Your task to perform on an android device: What is the news today? Image 0: 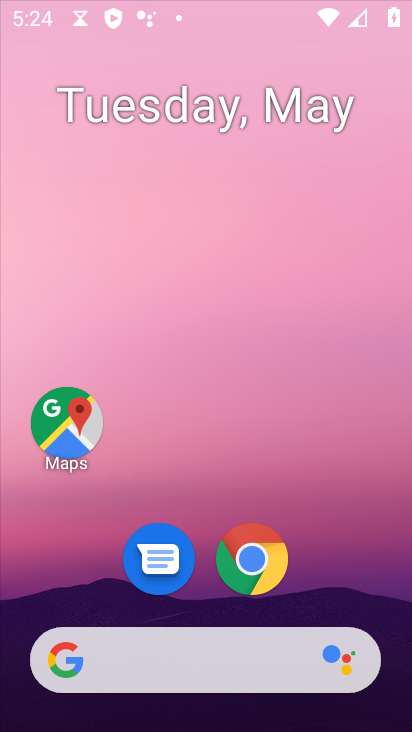
Step 0: drag from (290, 578) to (127, 46)
Your task to perform on an android device: What is the news today? Image 1: 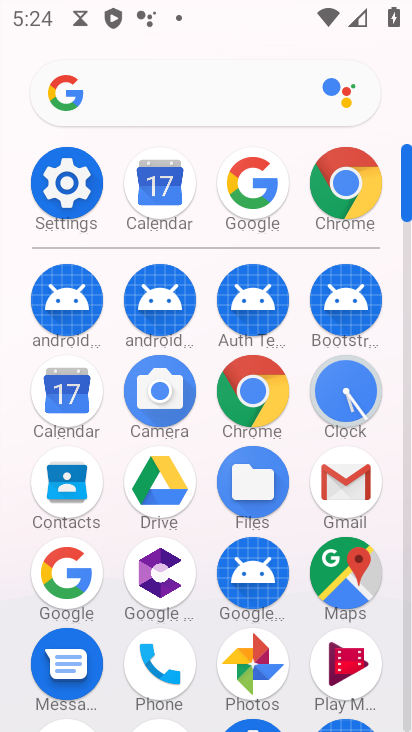
Step 1: press back button
Your task to perform on an android device: What is the news today? Image 2: 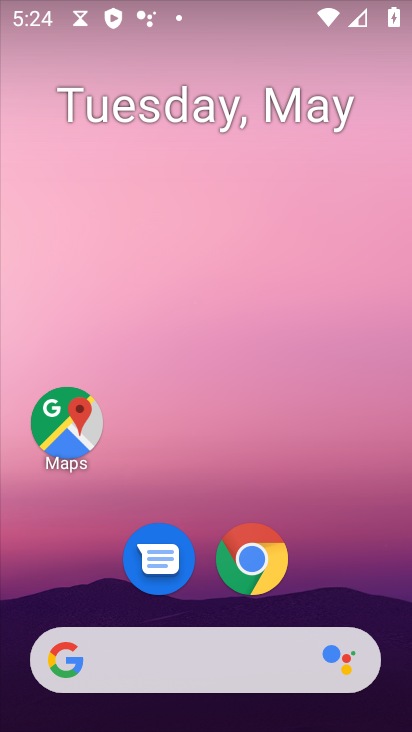
Step 2: drag from (7, 152) to (409, 344)
Your task to perform on an android device: What is the news today? Image 3: 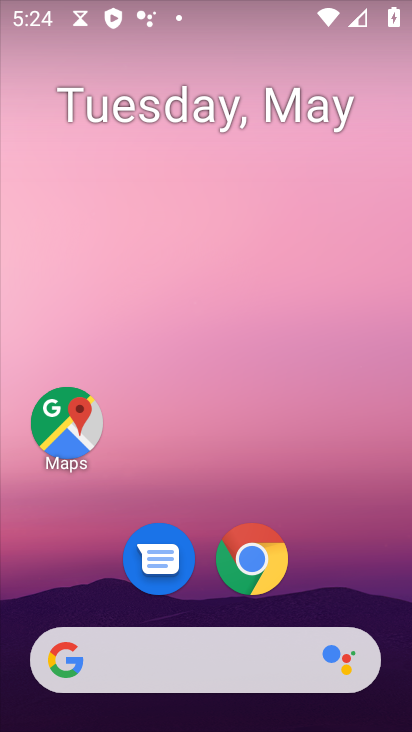
Step 3: drag from (56, 197) to (408, 334)
Your task to perform on an android device: What is the news today? Image 4: 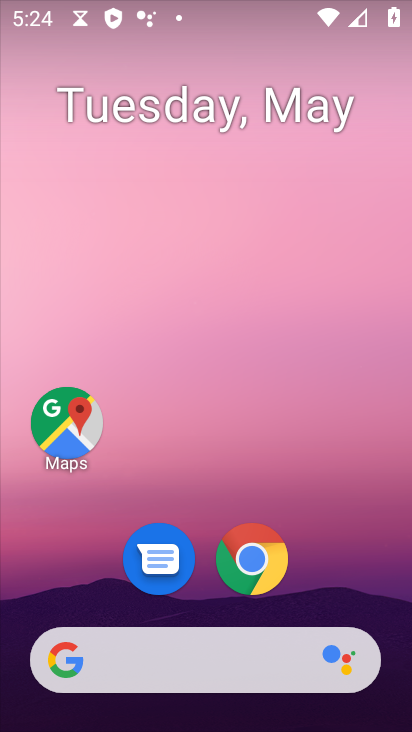
Step 4: drag from (8, 176) to (406, 428)
Your task to perform on an android device: What is the news today? Image 5: 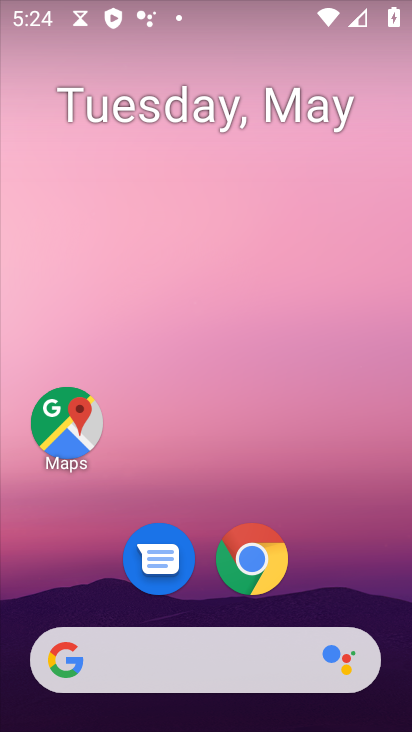
Step 5: drag from (4, 208) to (411, 395)
Your task to perform on an android device: What is the news today? Image 6: 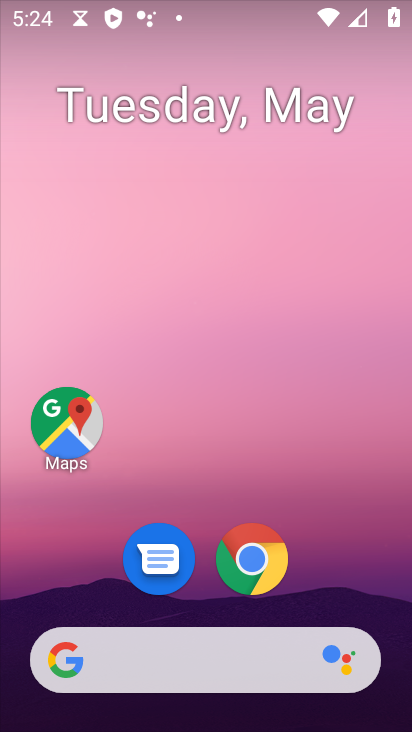
Step 6: drag from (33, 243) to (382, 352)
Your task to perform on an android device: What is the news today? Image 7: 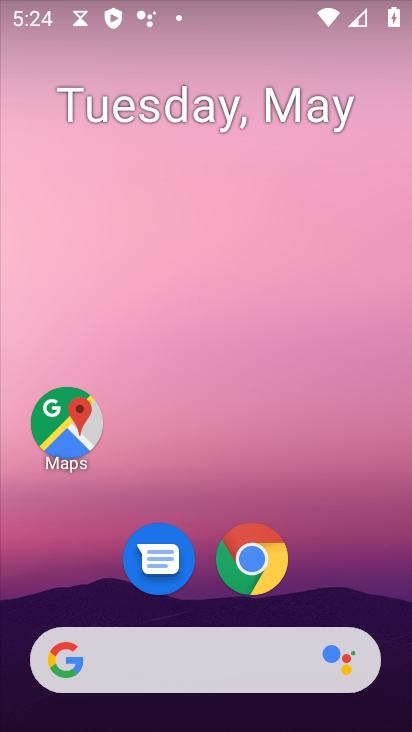
Step 7: drag from (15, 279) to (360, 341)
Your task to perform on an android device: What is the news today? Image 8: 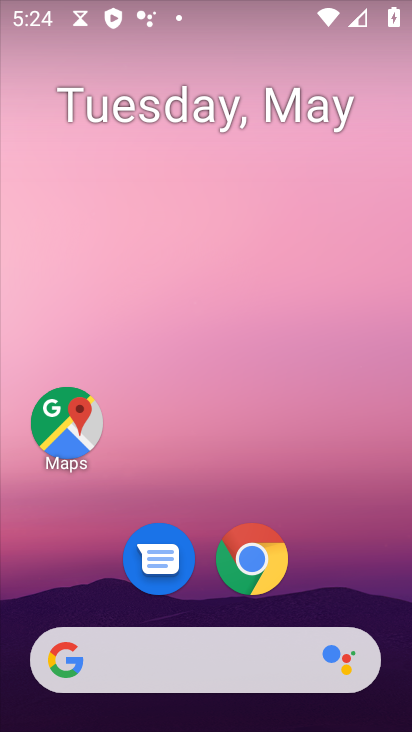
Step 8: drag from (2, 197) to (387, 295)
Your task to perform on an android device: What is the news today? Image 9: 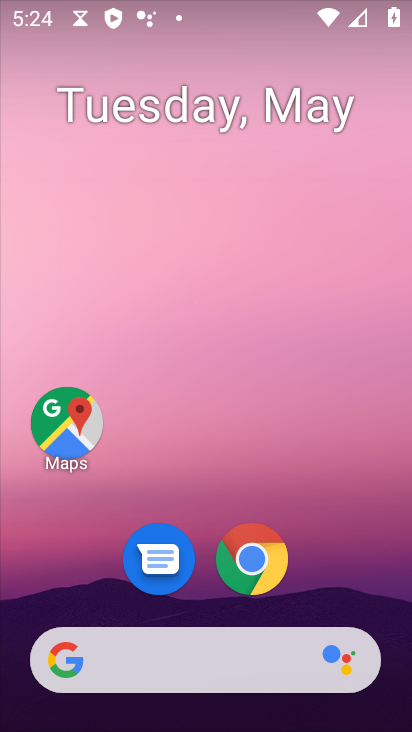
Step 9: drag from (6, 256) to (366, 383)
Your task to perform on an android device: What is the news today? Image 10: 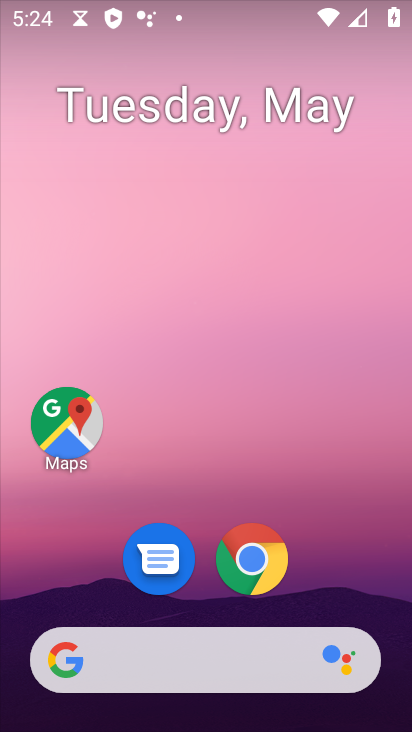
Step 10: drag from (275, 385) to (316, 314)
Your task to perform on an android device: What is the news today? Image 11: 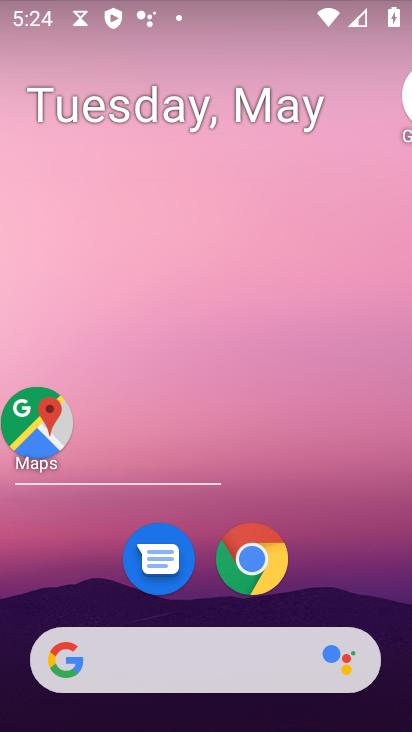
Step 11: drag from (11, 195) to (407, 318)
Your task to perform on an android device: What is the news today? Image 12: 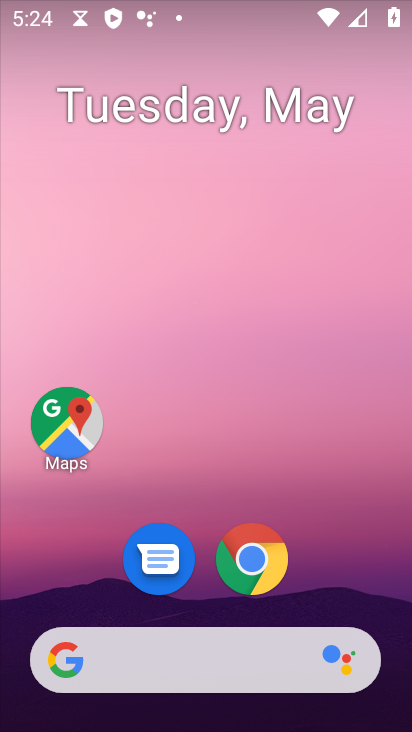
Step 12: drag from (82, 127) to (371, 292)
Your task to perform on an android device: What is the news today? Image 13: 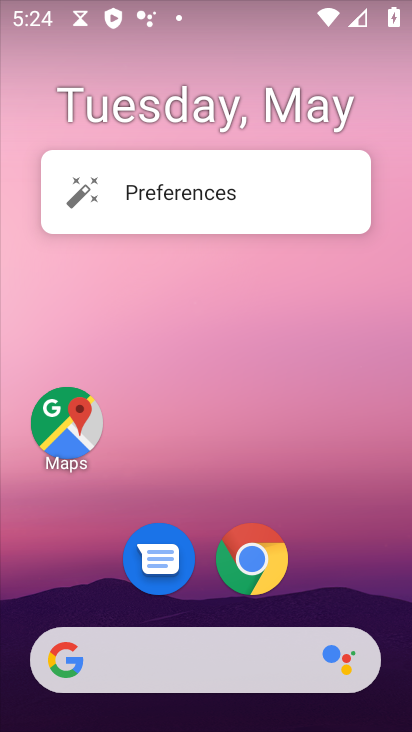
Step 13: drag from (26, 315) to (369, 357)
Your task to perform on an android device: What is the news today? Image 14: 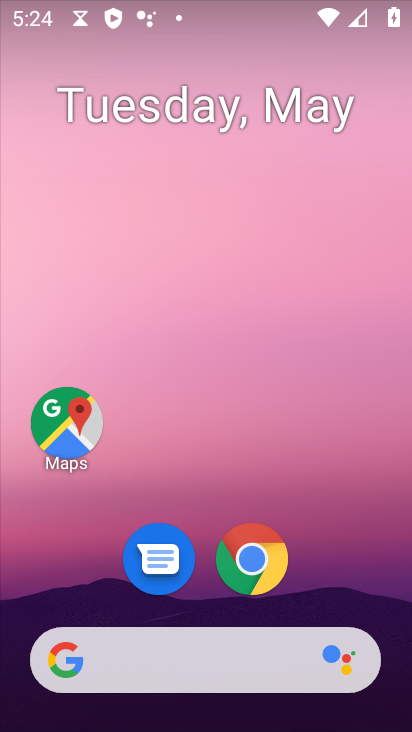
Step 14: drag from (115, 209) to (406, 340)
Your task to perform on an android device: What is the news today? Image 15: 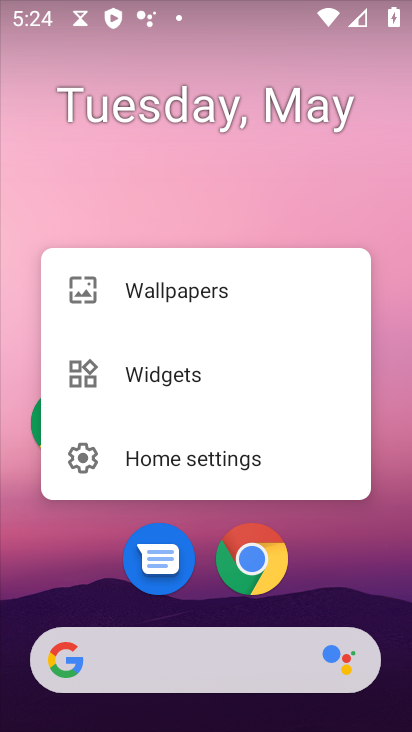
Step 15: drag from (38, 267) to (382, 436)
Your task to perform on an android device: What is the news today? Image 16: 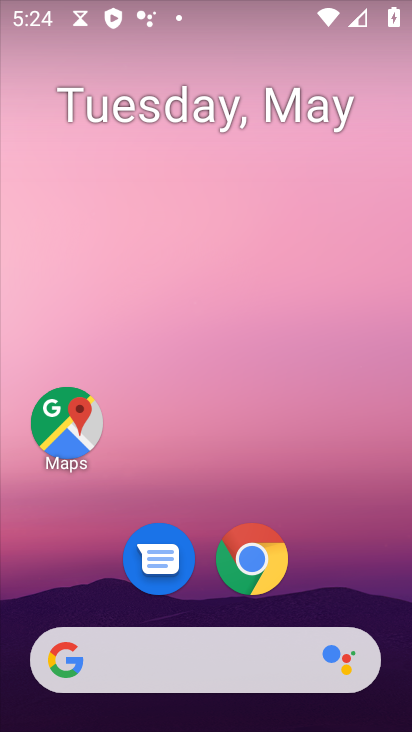
Step 16: click (226, 279)
Your task to perform on an android device: What is the news today? Image 17: 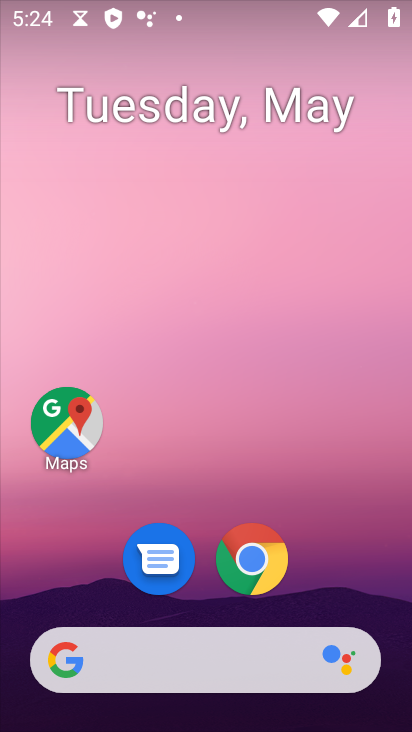
Step 17: drag from (158, 386) to (306, 491)
Your task to perform on an android device: What is the news today? Image 18: 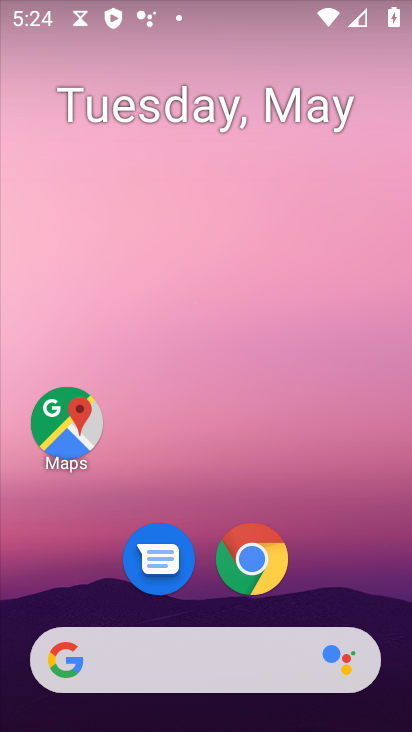
Step 18: drag from (44, 202) to (369, 547)
Your task to perform on an android device: What is the news today? Image 19: 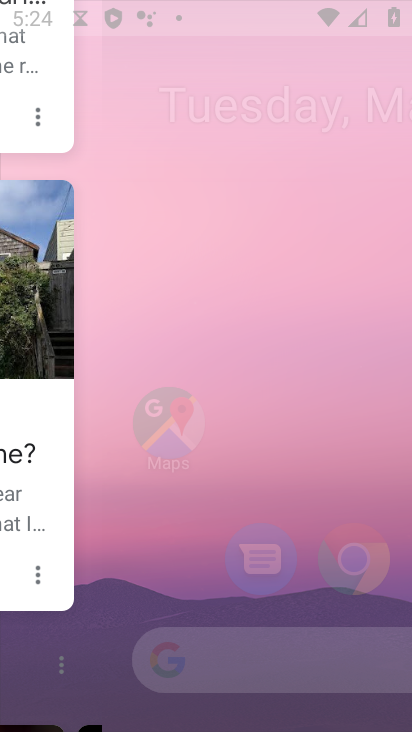
Step 19: drag from (41, 227) to (401, 602)
Your task to perform on an android device: What is the news today? Image 20: 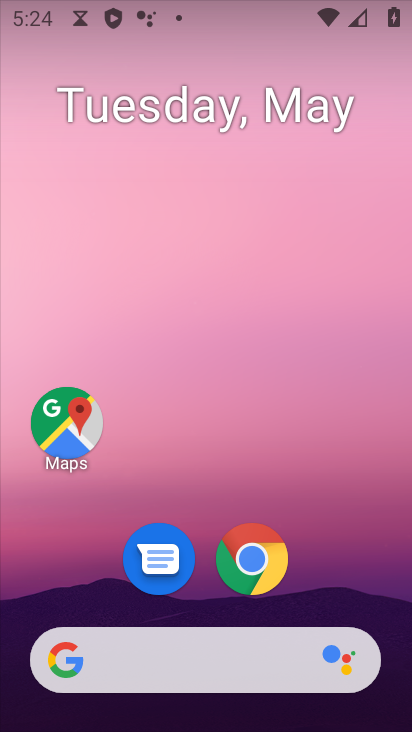
Step 20: drag from (91, 231) to (387, 333)
Your task to perform on an android device: What is the news today? Image 21: 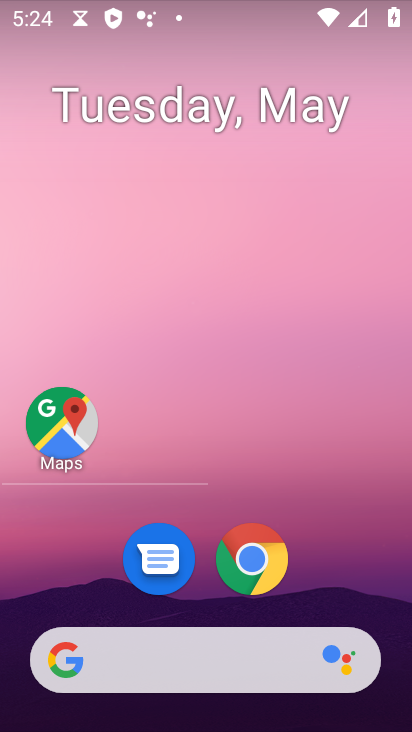
Step 21: drag from (52, 256) to (395, 566)
Your task to perform on an android device: What is the news today? Image 22: 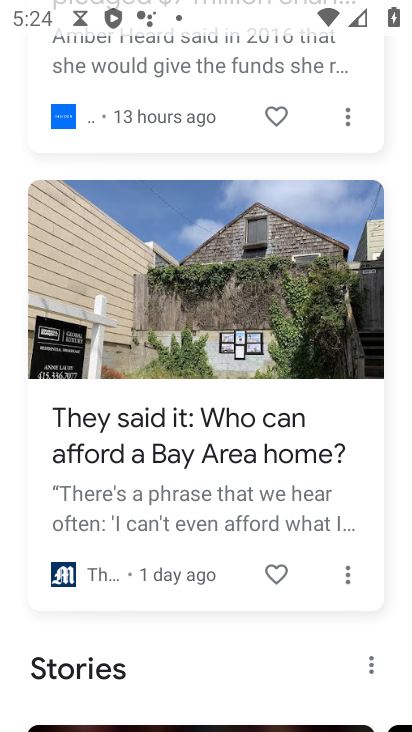
Step 22: drag from (173, 115) to (282, 517)
Your task to perform on an android device: What is the news today? Image 23: 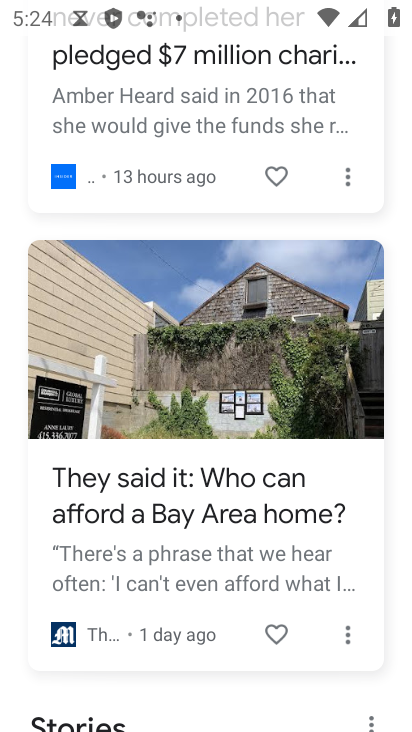
Step 23: drag from (163, 170) to (203, 472)
Your task to perform on an android device: What is the news today? Image 24: 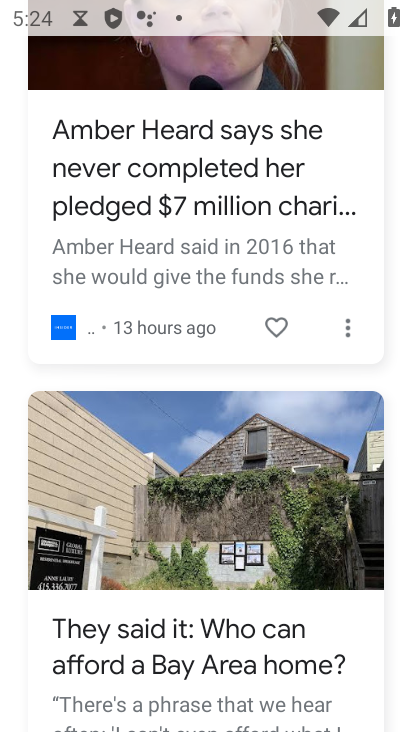
Step 24: drag from (153, 169) to (219, 414)
Your task to perform on an android device: What is the news today? Image 25: 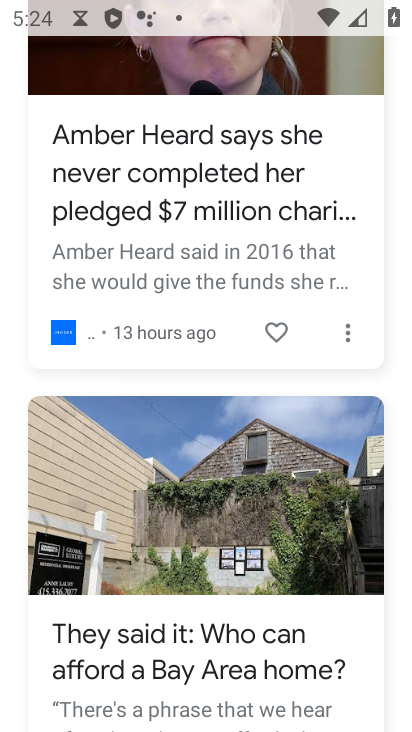
Step 25: drag from (171, 154) to (211, 423)
Your task to perform on an android device: What is the news today? Image 26: 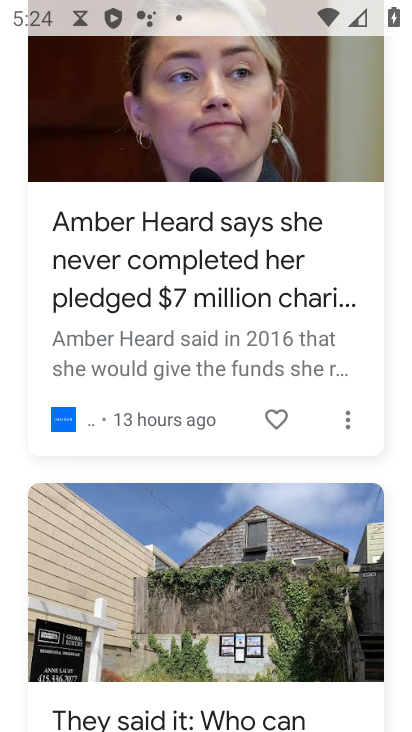
Step 26: drag from (186, 144) to (186, 481)
Your task to perform on an android device: What is the news today? Image 27: 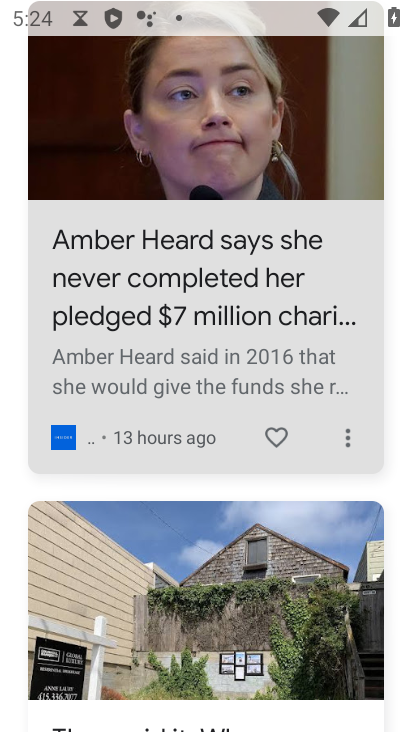
Step 27: drag from (112, 168) to (155, 453)
Your task to perform on an android device: What is the news today? Image 28: 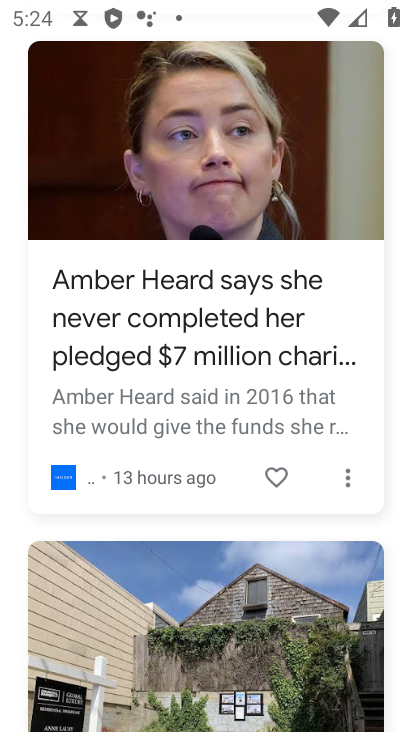
Step 28: drag from (185, 445) to (197, 544)
Your task to perform on an android device: What is the news today? Image 29: 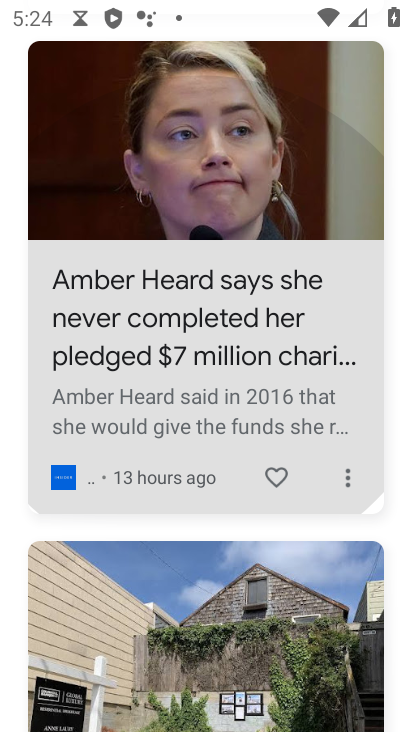
Step 29: drag from (118, 201) to (184, 514)
Your task to perform on an android device: What is the news today? Image 30: 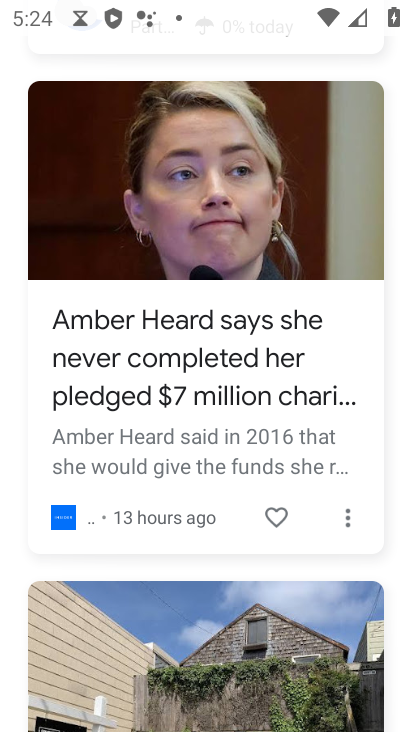
Step 30: drag from (148, 174) to (213, 529)
Your task to perform on an android device: What is the news today? Image 31: 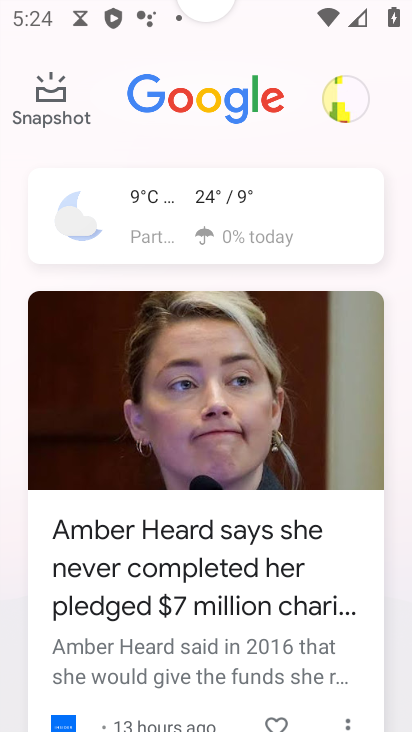
Step 31: drag from (230, 268) to (230, 531)
Your task to perform on an android device: What is the news today? Image 32: 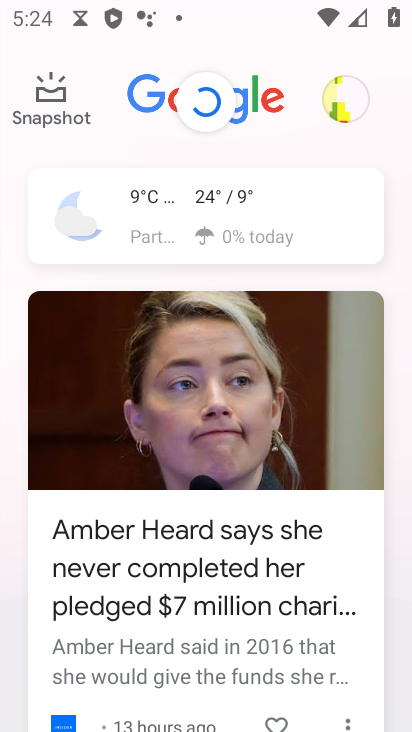
Step 32: click (218, 220)
Your task to perform on an android device: What is the news today? Image 33: 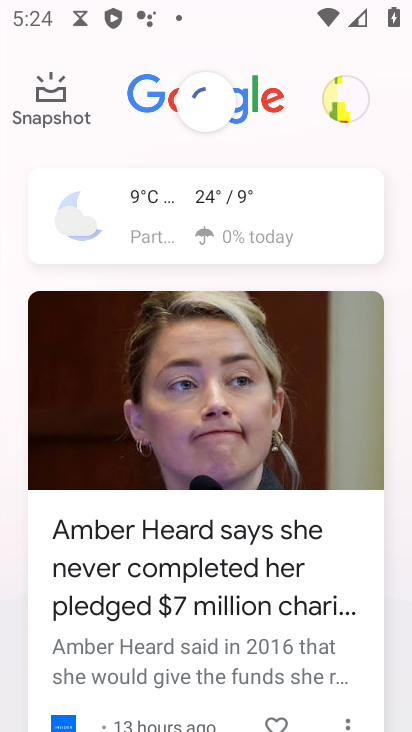
Step 33: click (218, 220)
Your task to perform on an android device: What is the news today? Image 34: 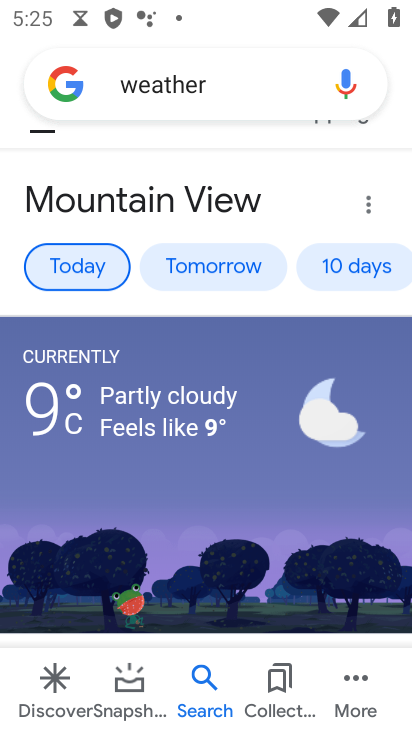
Step 34: task complete